Your task to perform on an android device: open sync settings in chrome Image 0: 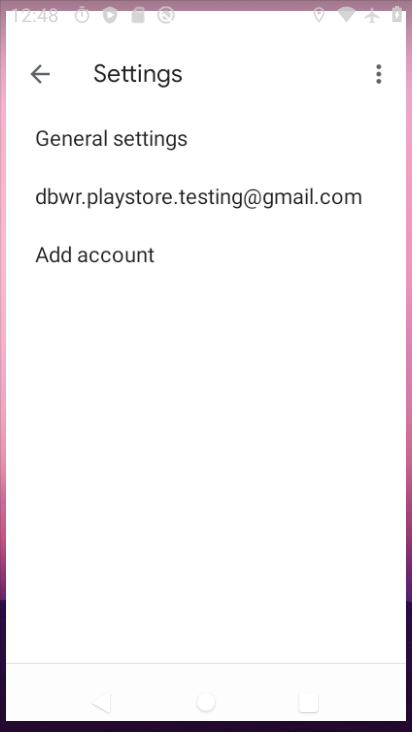
Step 0: press home button
Your task to perform on an android device: open sync settings in chrome Image 1: 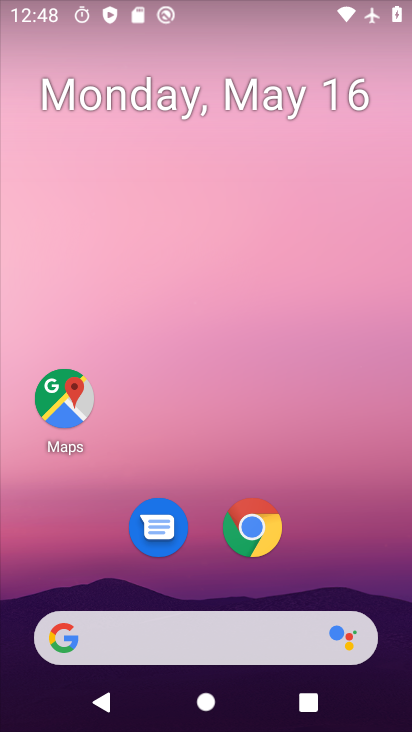
Step 1: click (262, 528)
Your task to perform on an android device: open sync settings in chrome Image 2: 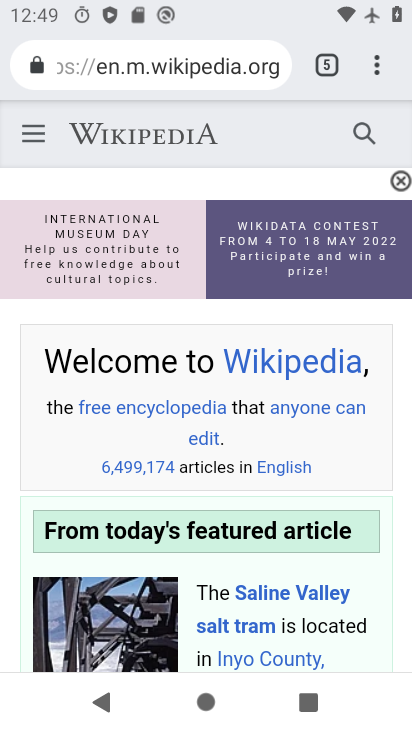
Step 2: drag from (376, 66) to (205, 582)
Your task to perform on an android device: open sync settings in chrome Image 3: 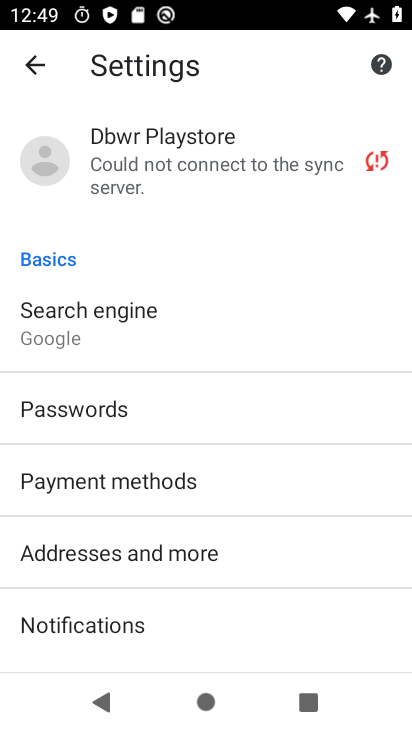
Step 3: click (193, 182)
Your task to perform on an android device: open sync settings in chrome Image 4: 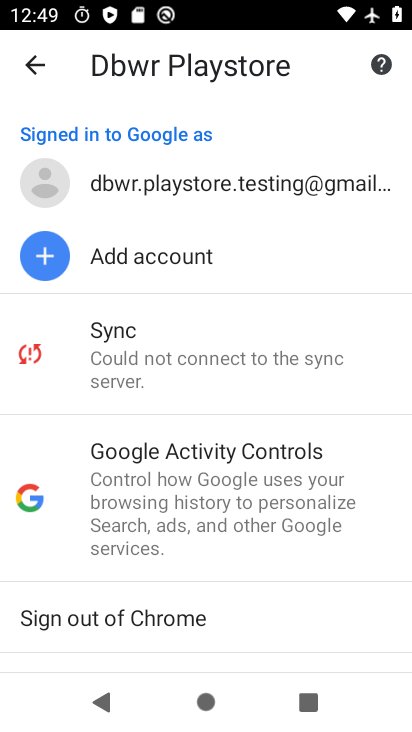
Step 4: click (154, 340)
Your task to perform on an android device: open sync settings in chrome Image 5: 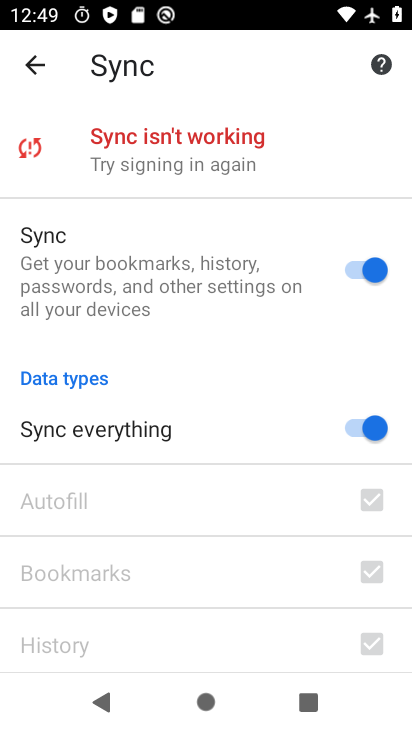
Step 5: click (184, 153)
Your task to perform on an android device: open sync settings in chrome Image 6: 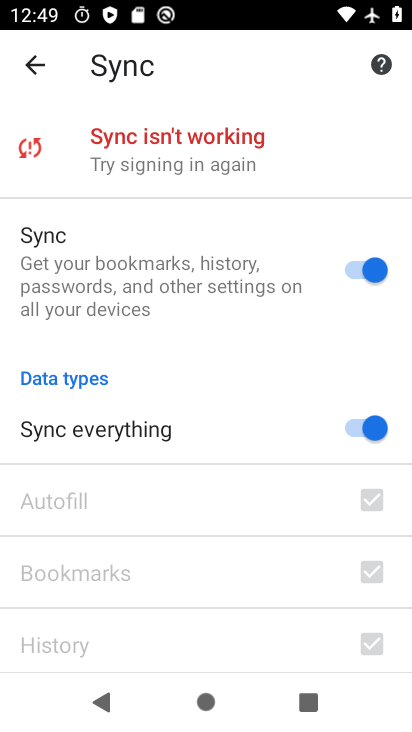
Step 6: task complete